Your task to perform on an android device: What's the weather today? Image 0: 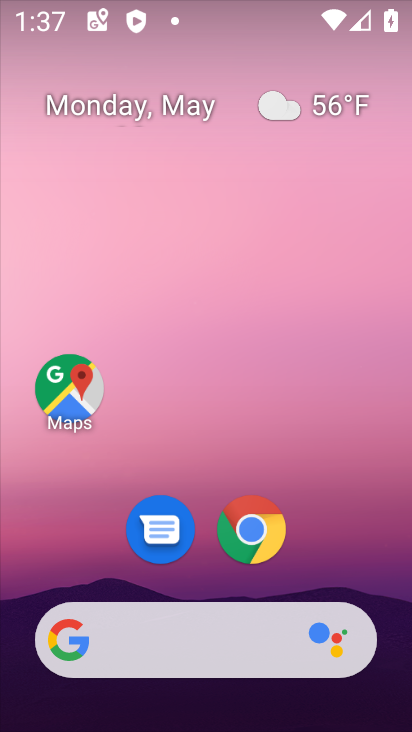
Step 0: click (132, 642)
Your task to perform on an android device: What's the weather today? Image 1: 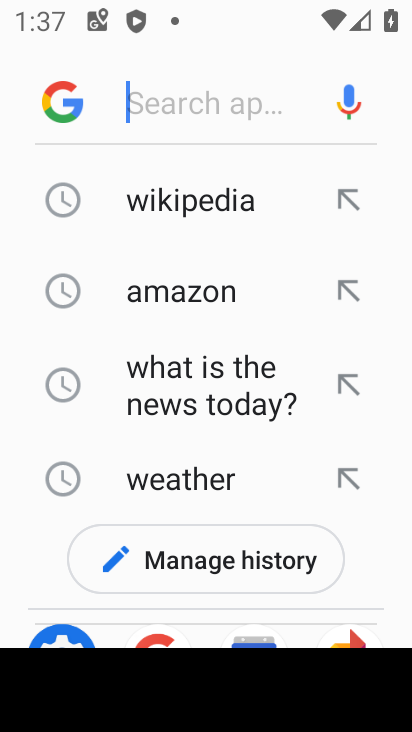
Step 1: type "what's the weather today"
Your task to perform on an android device: What's the weather today? Image 2: 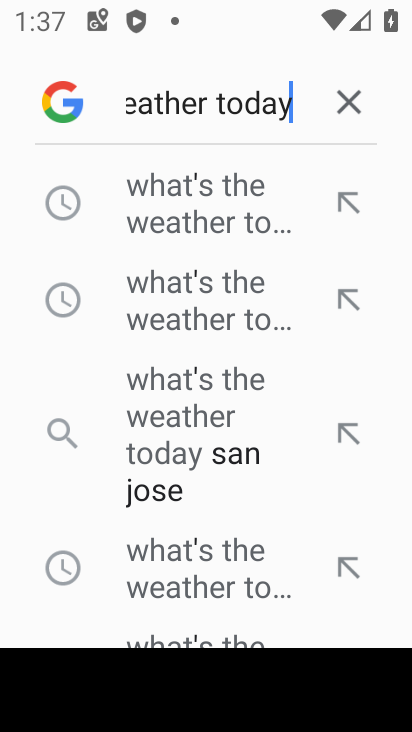
Step 2: click (208, 223)
Your task to perform on an android device: What's the weather today? Image 3: 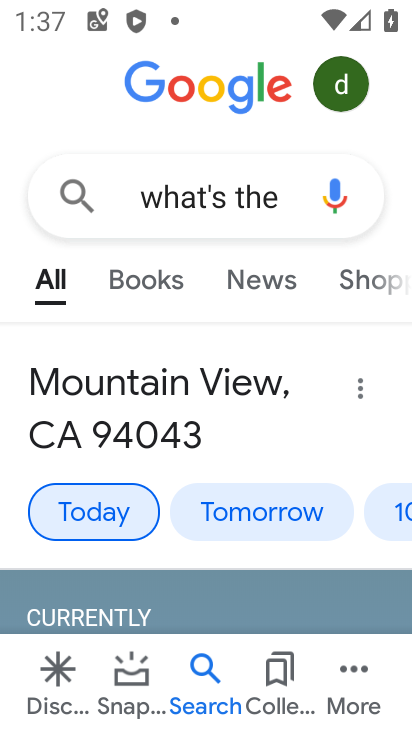
Step 3: task complete